Your task to perform on an android device: visit the assistant section in the google photos Image 0: 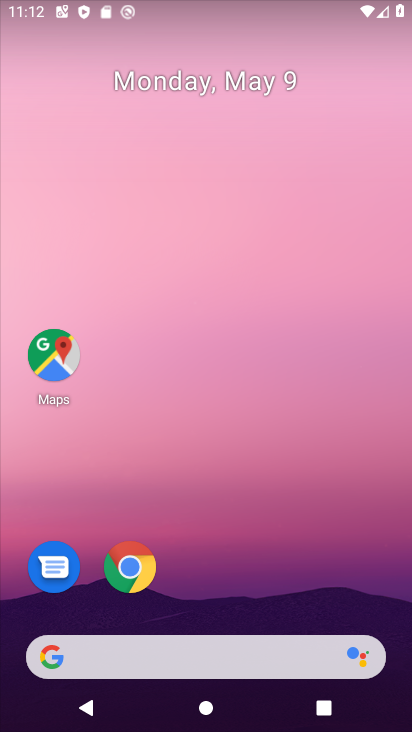
Step 0: drag from (207, 616) to (285, 47)
Your task to perform on an android device: visit the assistant section in the google photos Image 1: 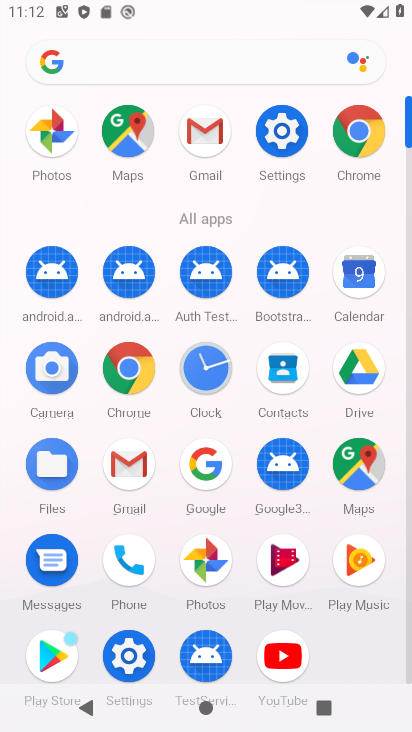
Step 1: click (213, 581)
Your task to perform on an android device: visit the assistant section in the google photos Image 2: 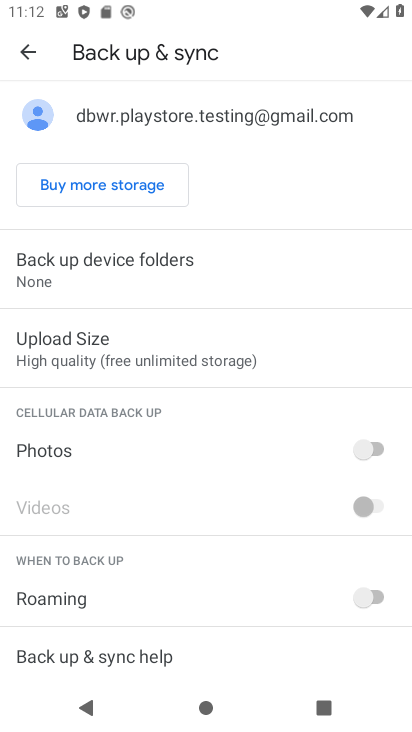
Step 2: click (33, 62)
Your task to perform on an android device: visit the assistant section in the google photos Image 3: 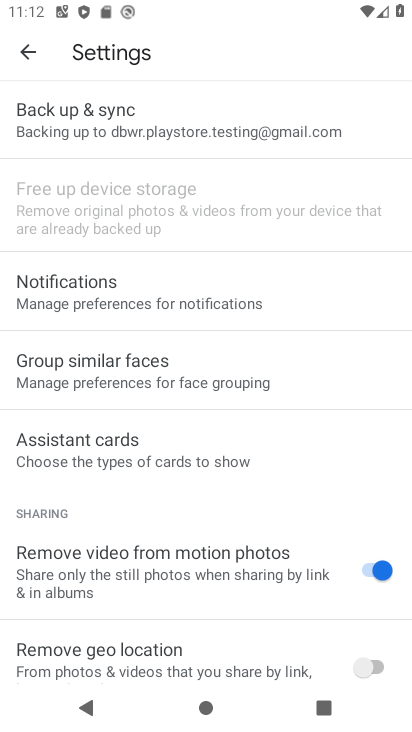
Step 3: click (32, 50)
Your task to perform on an android device: visit the assistant section in the google photos Image 4: 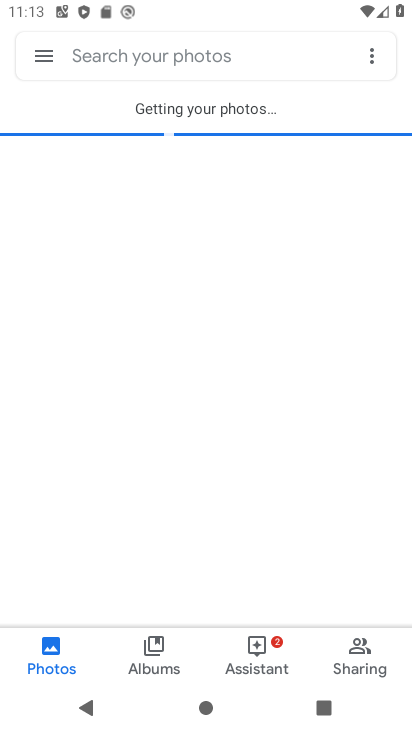
Step 4: click (261, 647)
Your task to perform on an android device: visit the assistant section in the google photos Image 5: 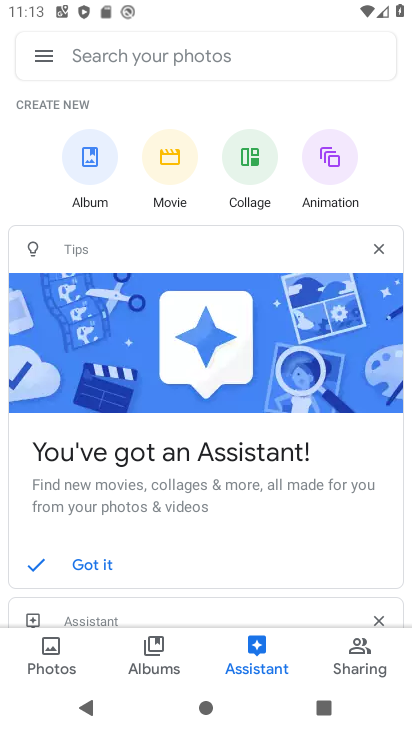
Step 5: task complete